Your task to perform on an android device: Open settings on Google Maps Image 0: 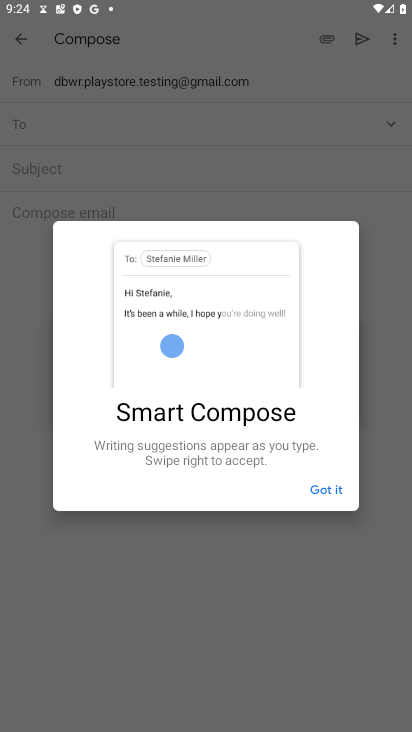
Step 0: press home button
Your task to perform on an android device: Open settings on Google Maps Image 1: 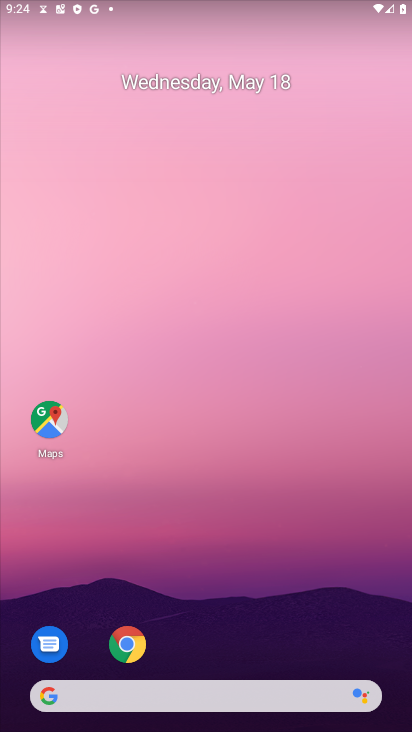
Step 1: click (49, 423)
Your task to perform on an android device: Open settings on Google Maps Image 2: 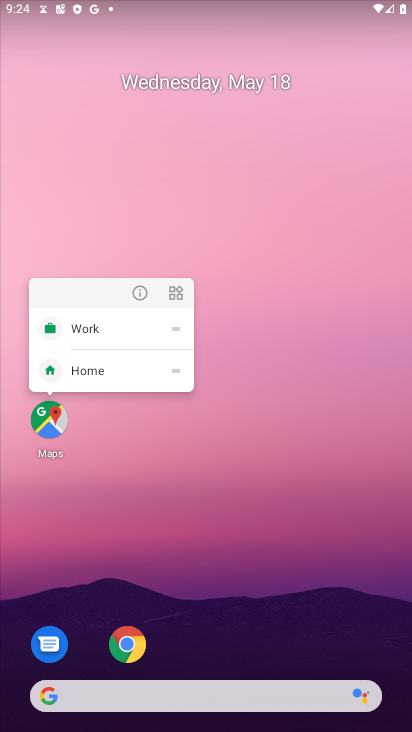
Step 2: click (49, 423)
Your task to perform on an android device: Open settings on Google Maps Image 3: 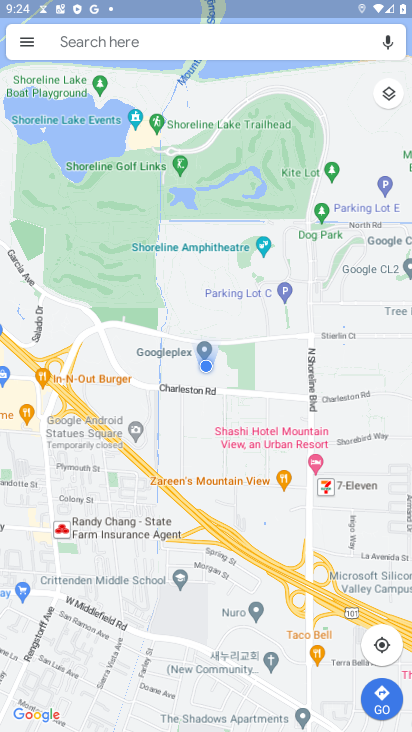
Step 3: click (23, 37)
Your task to perform on an android device: Open settings on Google Maps Image 4: 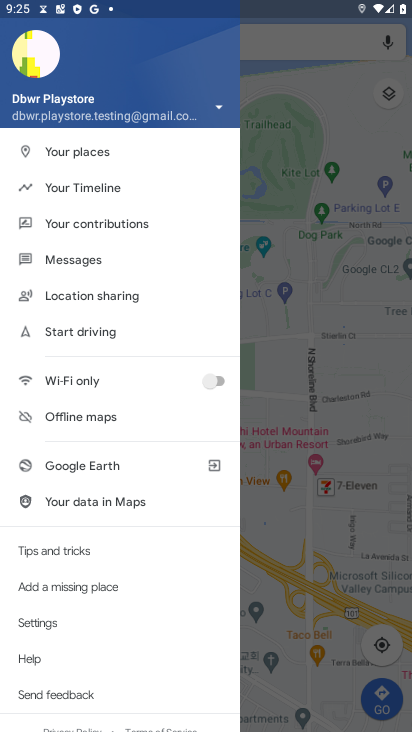
Step 4: click (29, 627)
Your task to perform on an android device: Open settings on Google Maps Image 5: 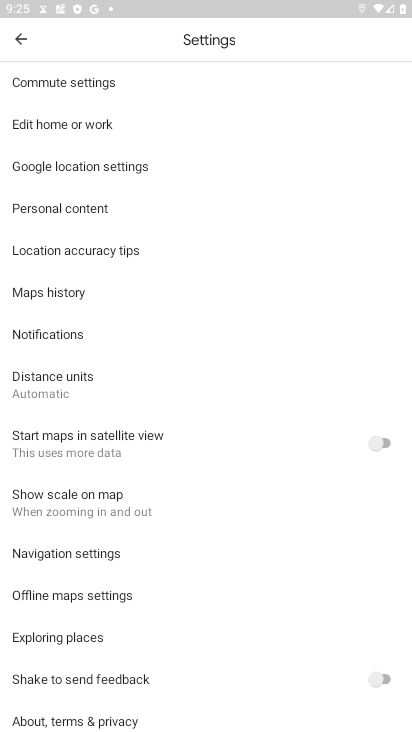
Step 5: task complete